Your task to perform on an android device: Go to Google maps Image 0: 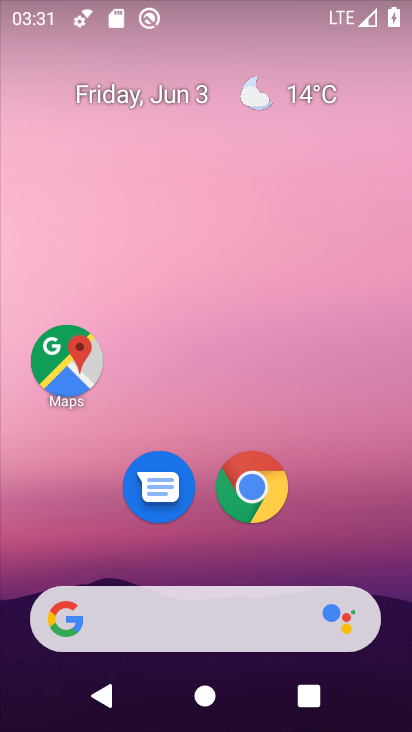
Step 0: click (70, 356)
Your task to perform on an android device: Go to Google maps Image 1: 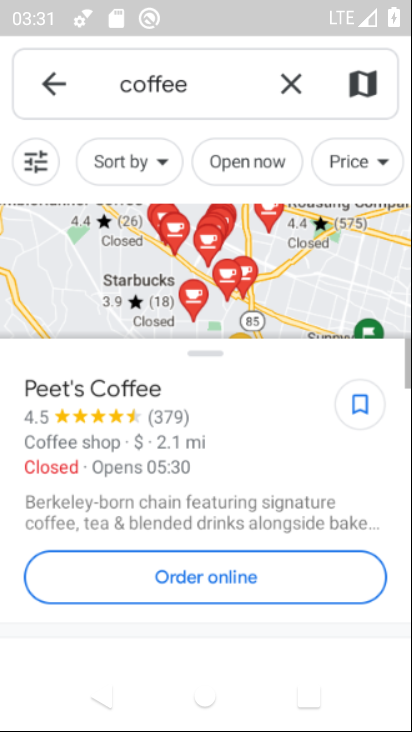
Step 1: task complete